Your task to perform on an android device: allow notifications from all sites in the chrome app Image 0: 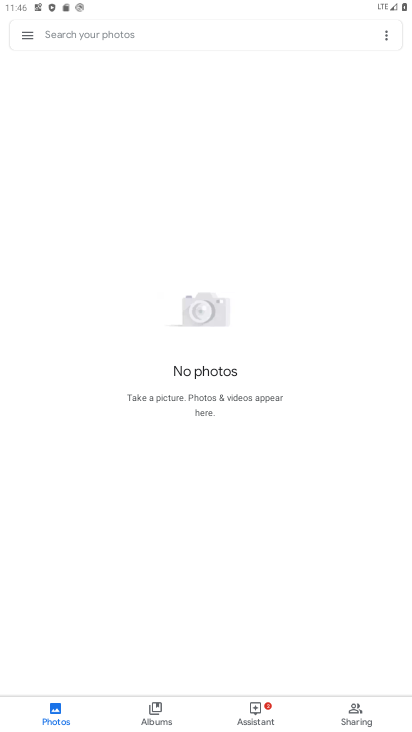
Step 0: press home button
Your task to perform on an android device: allow notifications from all sites in the chrome app Image 1: 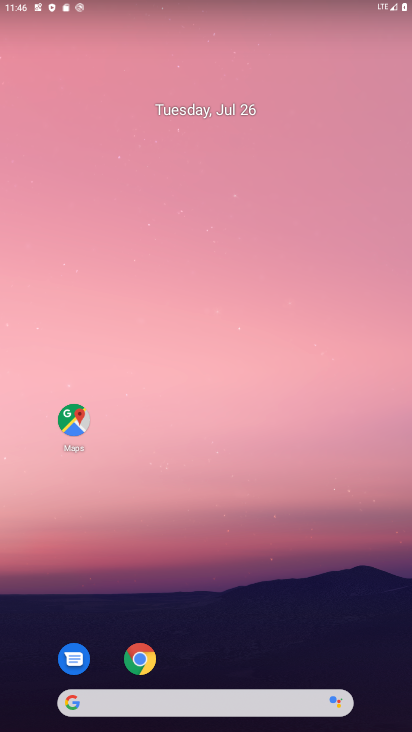
Step 1: drag from (239, 660) to (306, 125)
Your task to perform on an android device: allow notifications from all sites in the chrome app Image 2: 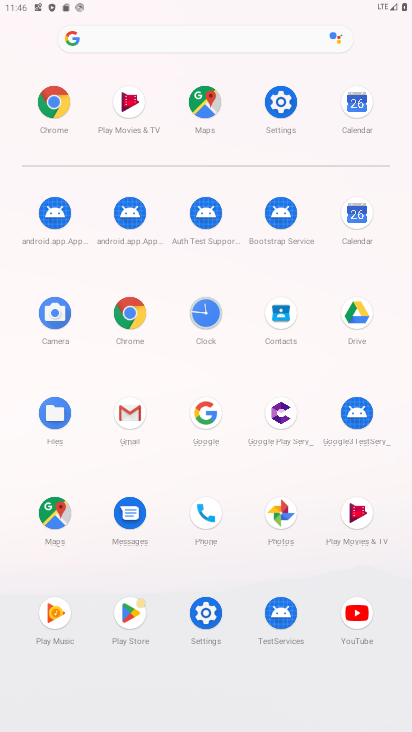
Step 2: click (143, 318)
Your task to perform on an android device: allow notifications from all sites in the chrome app Image 3: 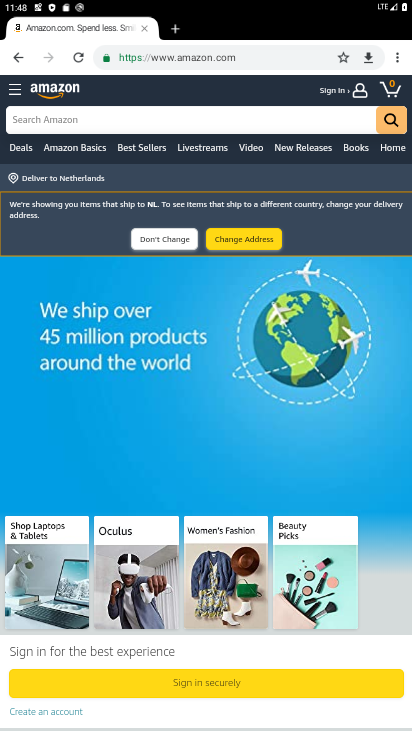
Step 3: click (395, 57)
Your task to perform on an android device: allow notifications from all sites in the chrome app Image 4: 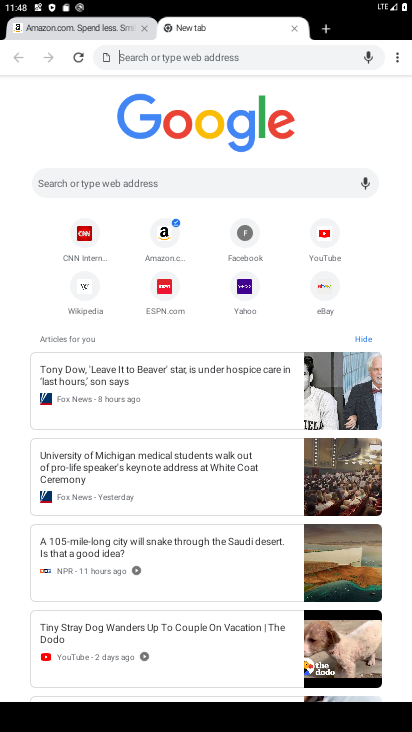
Step 4: click (402, 55)
Your task to perform on an android device: allow notifications from all sites in the chrome app Image 5: 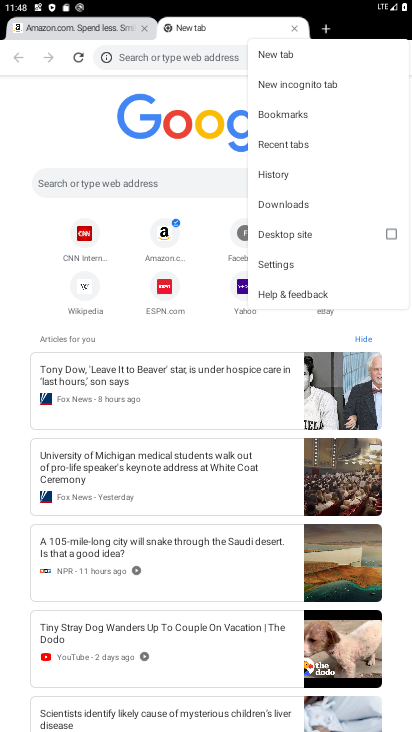
Step 5: click (302, 262)
Your task to perform on an android device: allow notifications from all sites in the chrome app Image 6: 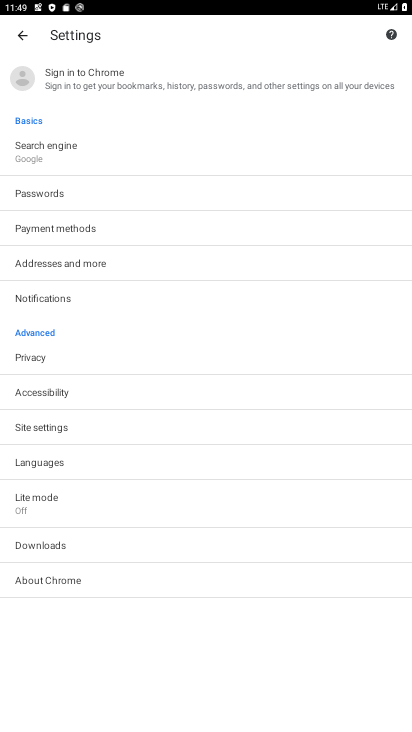
Step 6: click (91, 307)
Your task to perform on an android device: allow notifications from all sites in the chrome app Image 7: 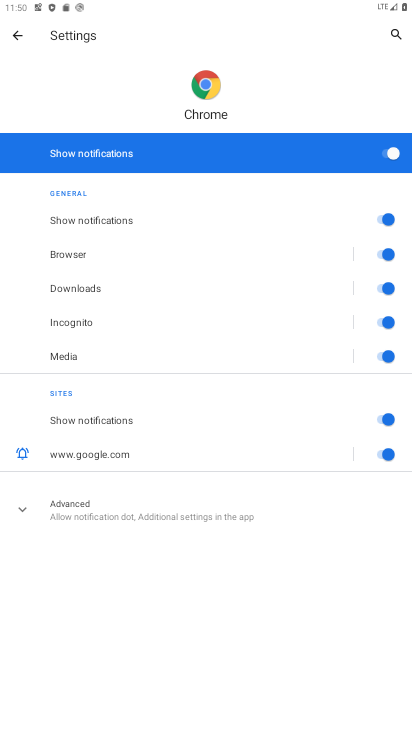
Step 7: press back button
Your task to perform on an android device: allow notifications from all sites in the chrome app Image 8: 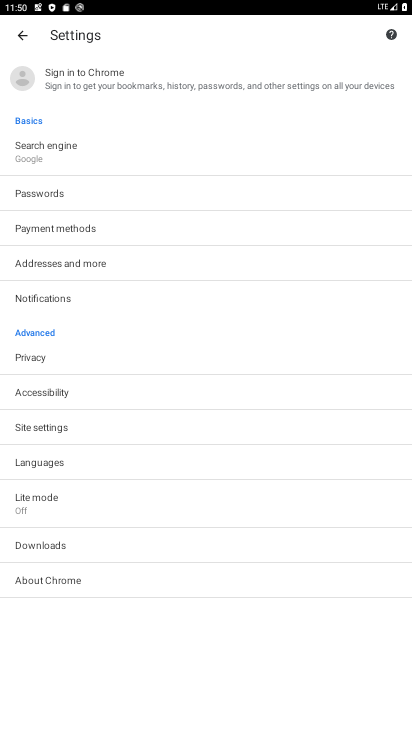
Step 8: click (88, 421)
Your task to perform on an android device: allow notifications from all sites in the chrome app Image 9: 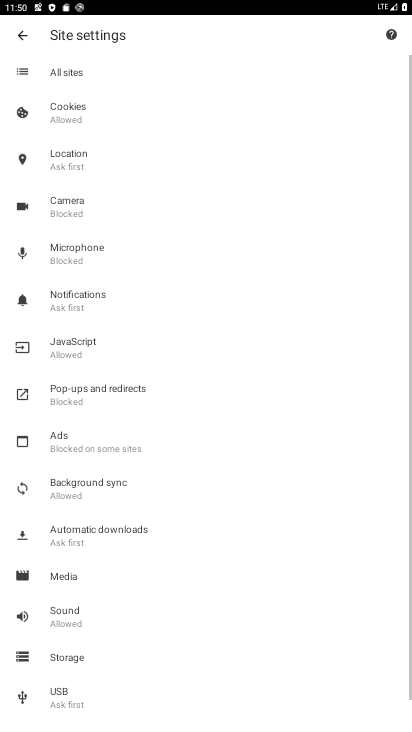
Step 9: click (131, 75)
Your task to perform on an android device: allow notifications from all sites in the chrome app Image 10: 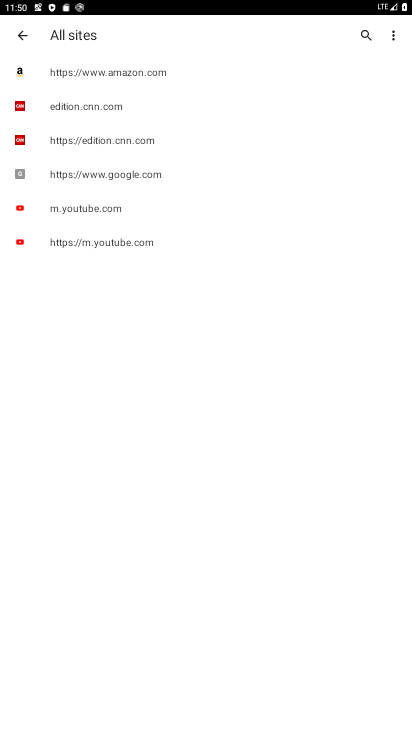
Step 10: task complete